Your task to perform on an android device: View the shopping cart on newegg. Add "razer naga" to the cart on newegg Image 0: 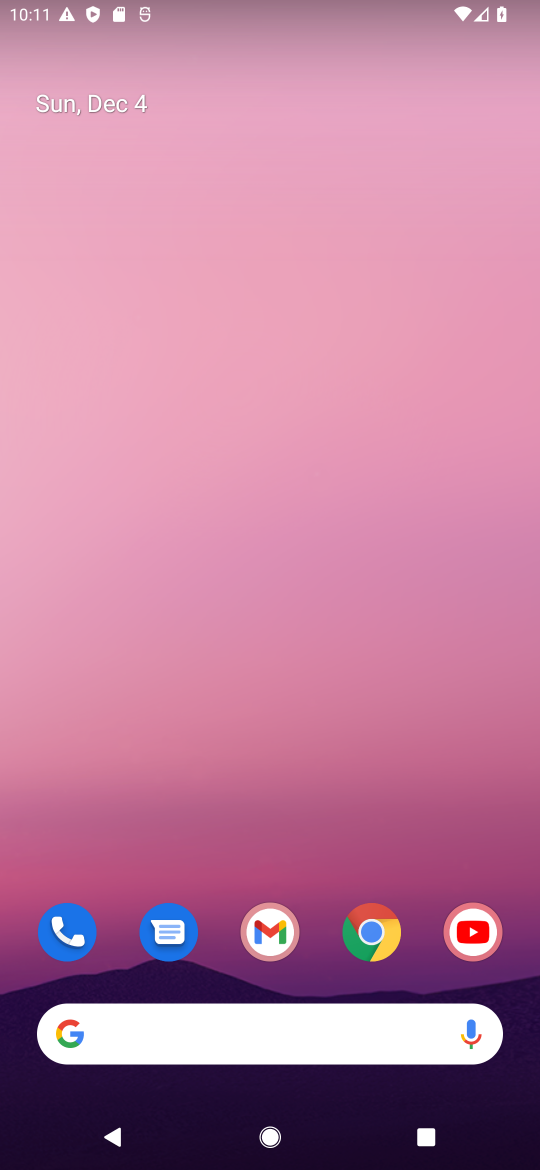
Step 0: click (372, 928)
Your task to perform on an android device: View the shopping cart on newegg. Add "razer naga" to the cart on newegg Image 1: 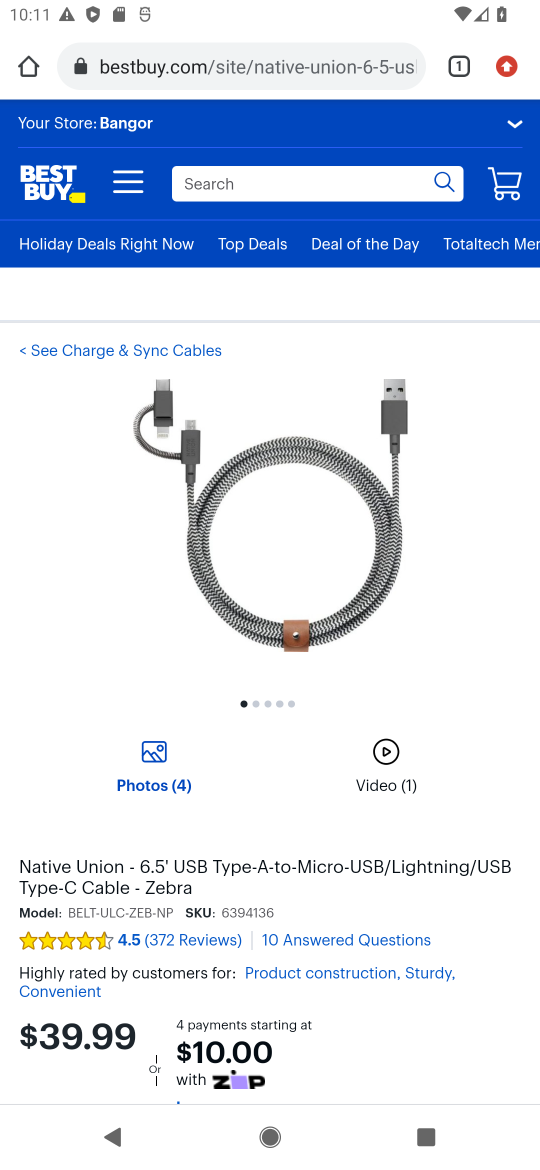
Step 1: click (260, 65)
Your task to perform on an android device: View the shopping cart on newegg. Add "razer naga" to the cart on newegg Image 2: 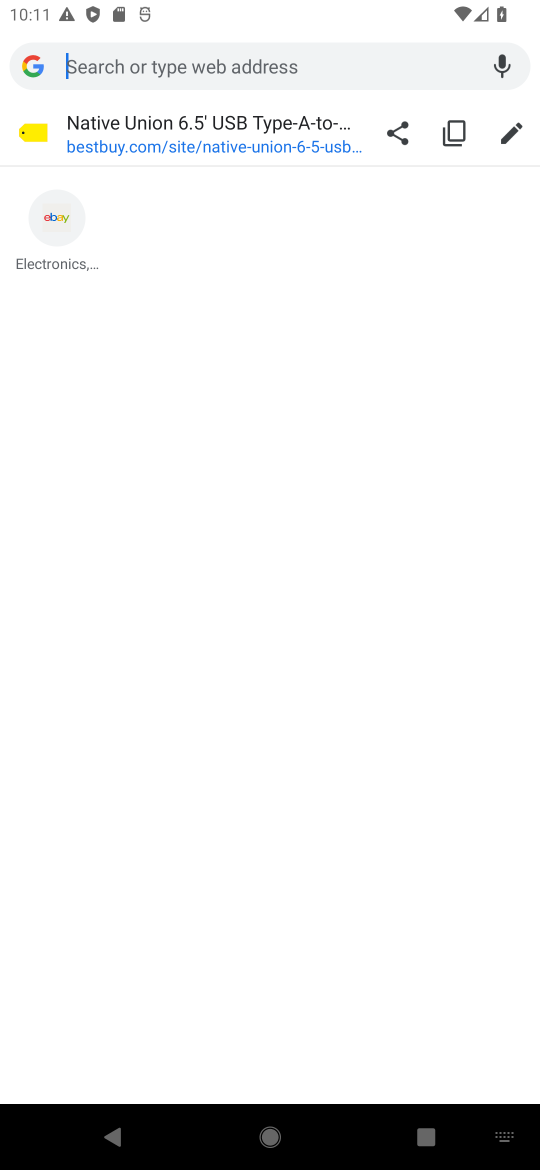
Step 2: type "newegg"
Your task to perform on an android device: View the shopping cart on newegg. Add "razer naga" to the cart on newegg Image 3: 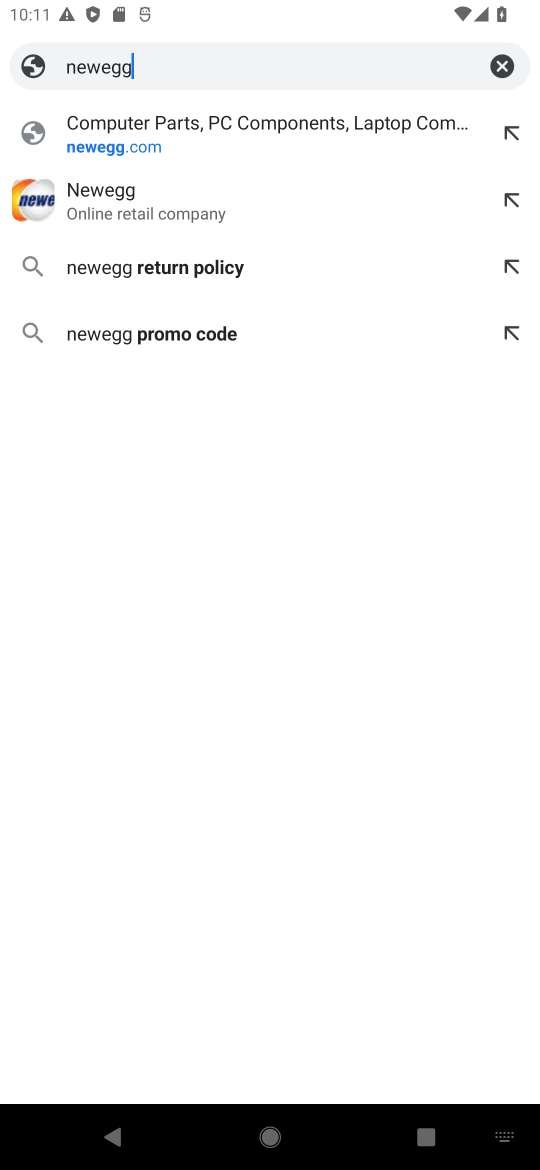
Step 3: click (228, 130)
Your task to perform on an android device: View the shopping cart on newegg. Add "razer naga" to the cart on newegg Image 4: 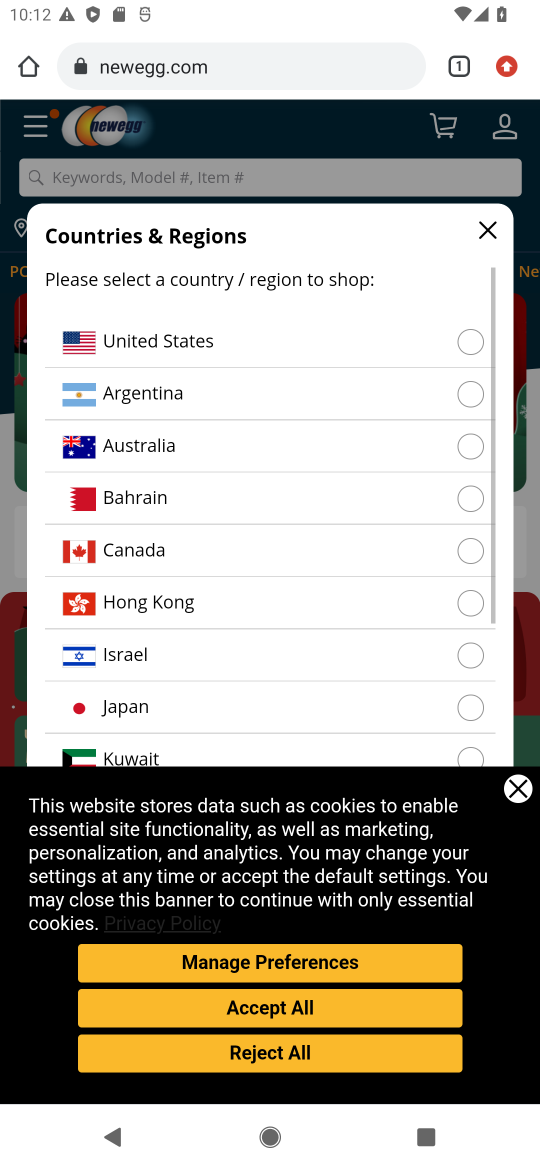
Step 4: click (517, 796)
Your task to perform on an android device: View the shopping cart on newegg. Add "razer naga" to the cart on newegg Image 5: 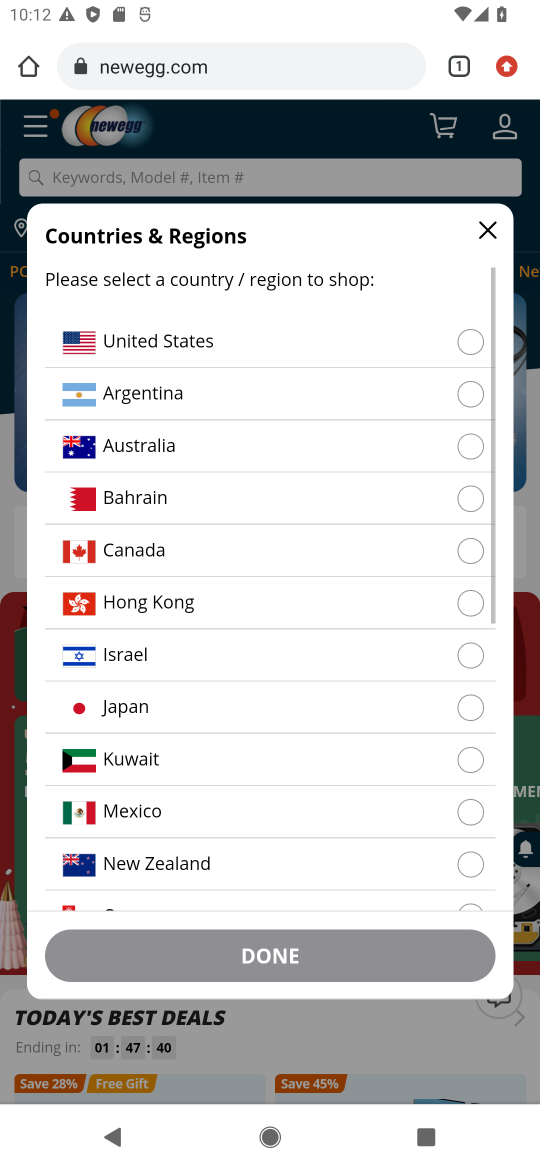
Step 5: click (176, 350)
Your task to perform on an android device: View the shopping cart on newegg. Add "razer naga" to the cart on newegg Image 6: 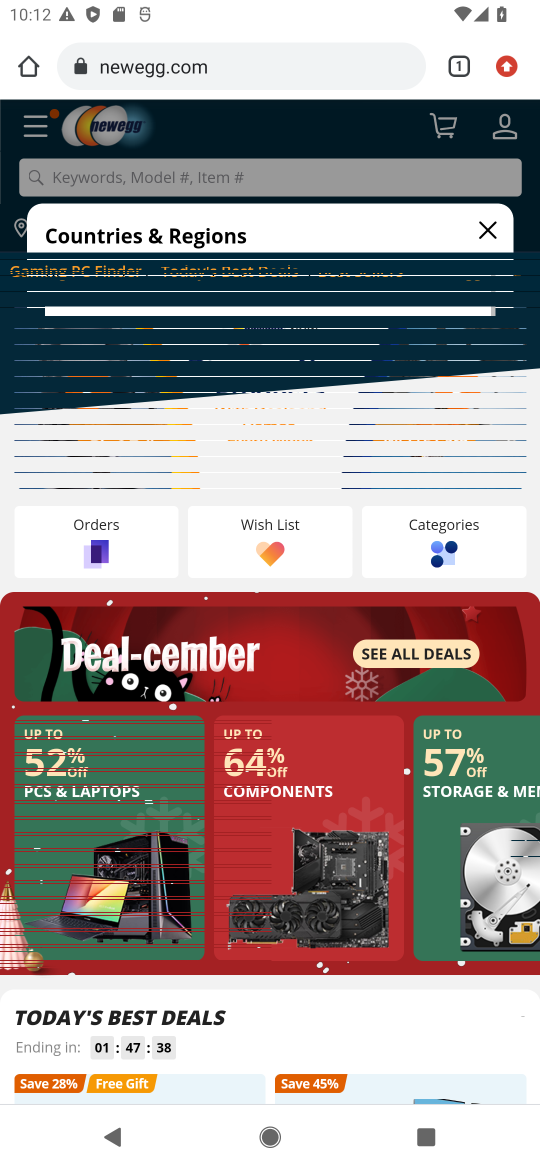
Step 6: click (276, 962)
Your task to perform on an android device: View the shopping cart on newegg. Add "razer naga" to the cart on newegg Image 7: 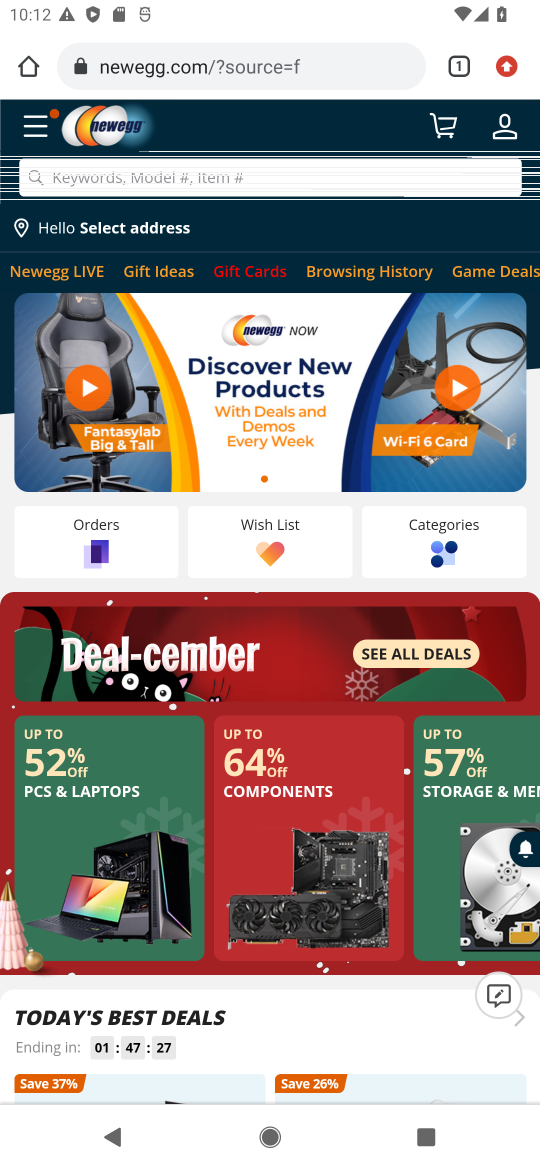
Step 7: click (254, 177)
Your task to perform on an android device: View the shopping cart on newegg. Add "razer naga" to the cart on newegg Image 8: 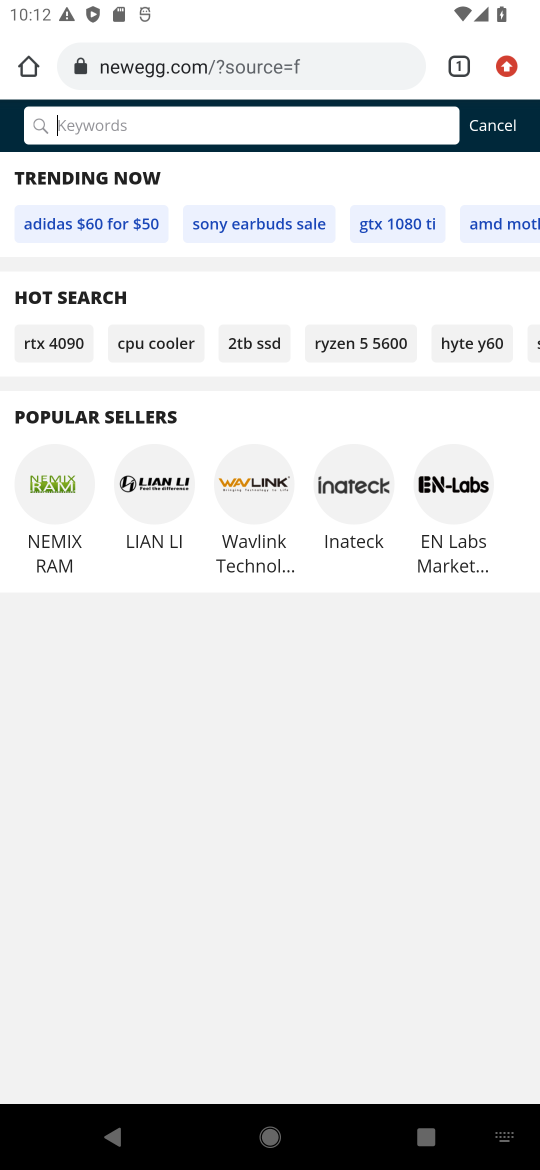
Step 8: type "razer naga"
Your task to perform on an android device: View the shopping cart on newegg. Add "razer naga" to the cart on newegg Image 9: 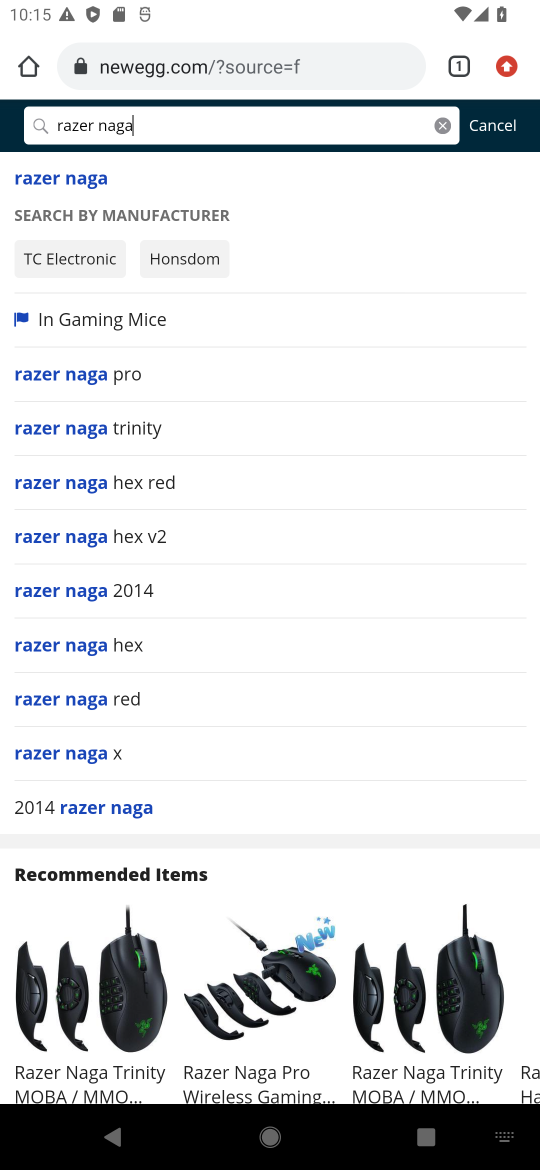
Step 9: click (100, 182)
Your task to perform on an android device: View the shopping cart on newegg. Add "razer naga" to the cart on newegg Image 10: 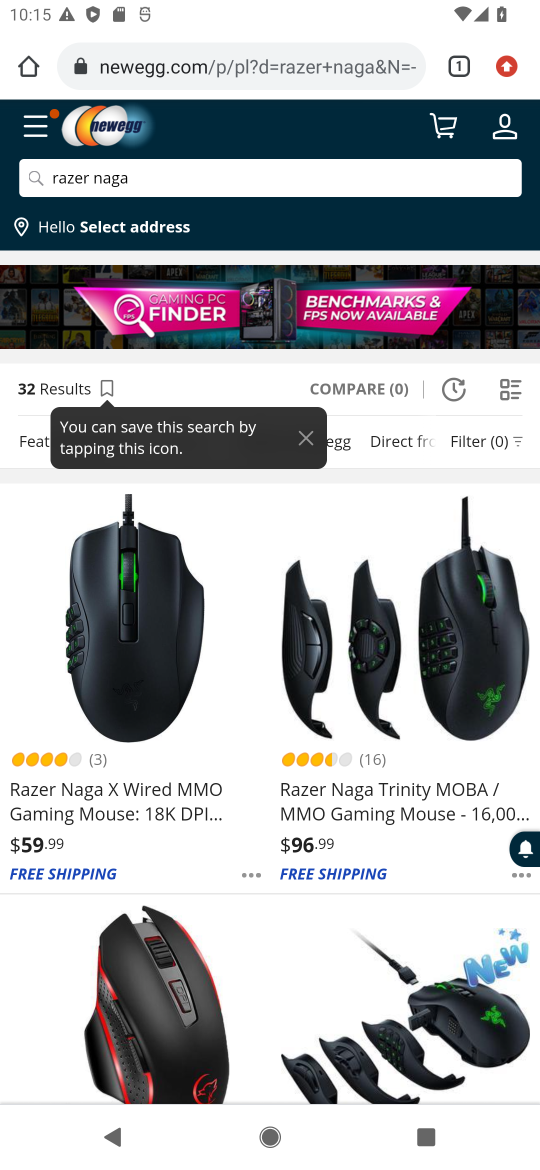
Step 10: click (113, 650)
Your task to perform on an android device: View the shopping cart on newegg. Add "razer naga" to the cart on newegg Image 11: 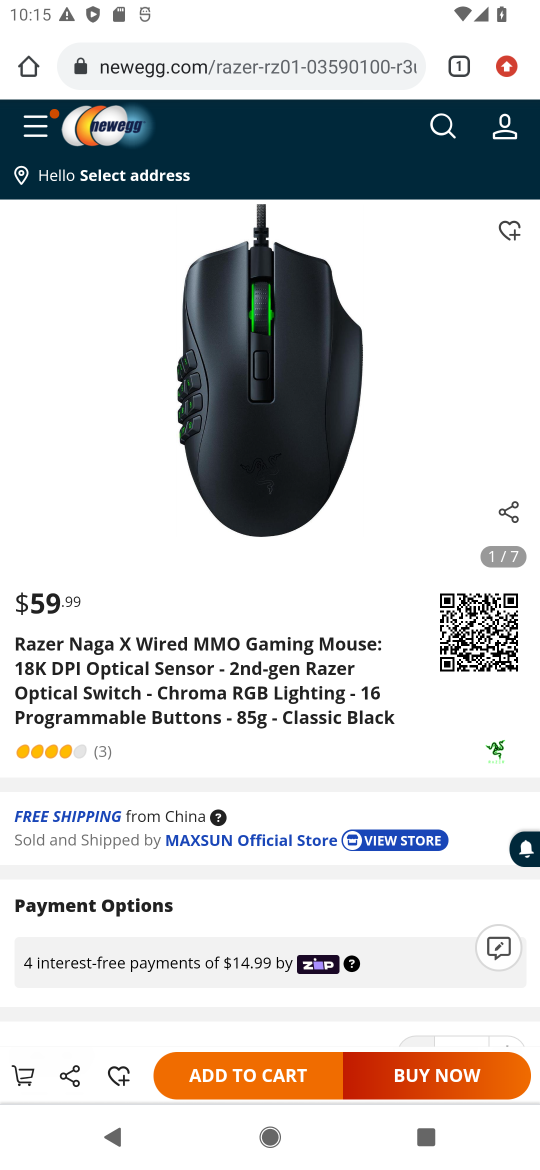
Step 11: click (261, 1083)
Your task to perform on an android device: View the shopping cart on newegg. Add "razer naga" to the cart on newegg Image 12: 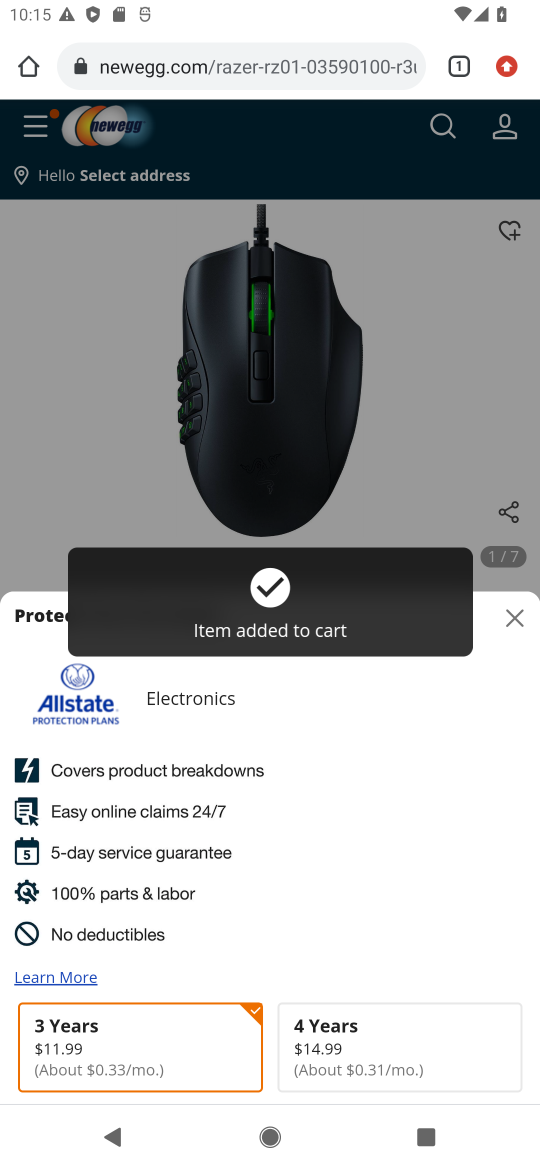
Step 12: task complete